Your task to perform on an android device: Open the web browser Image 0: 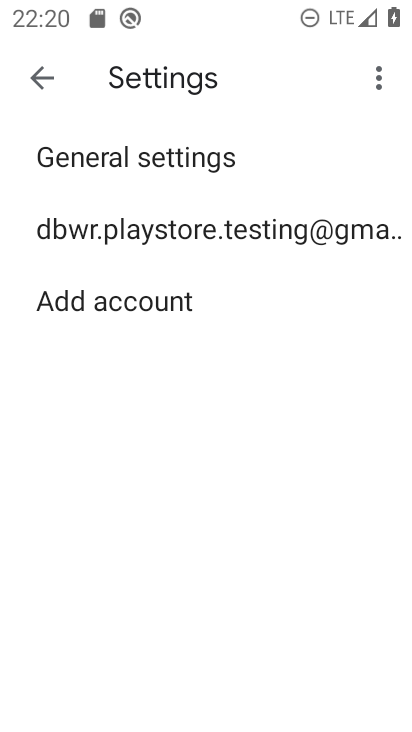
Step 0: press home button
Your task to perform on an android device: Open the web browser Image 1: 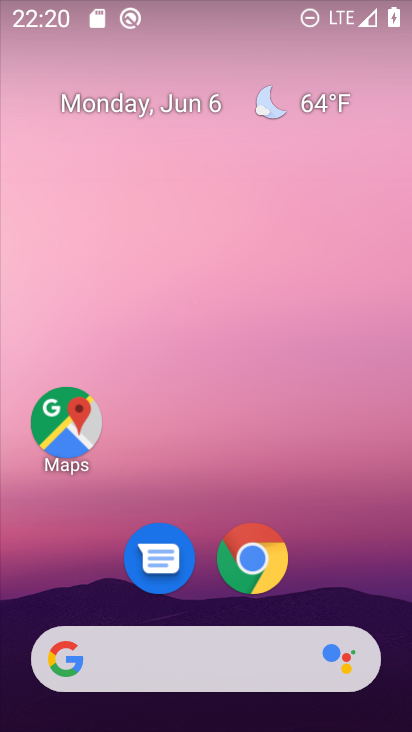
Step 1: click (260, 553)
Your task to perform on an android device: Open the web browser Image 2: 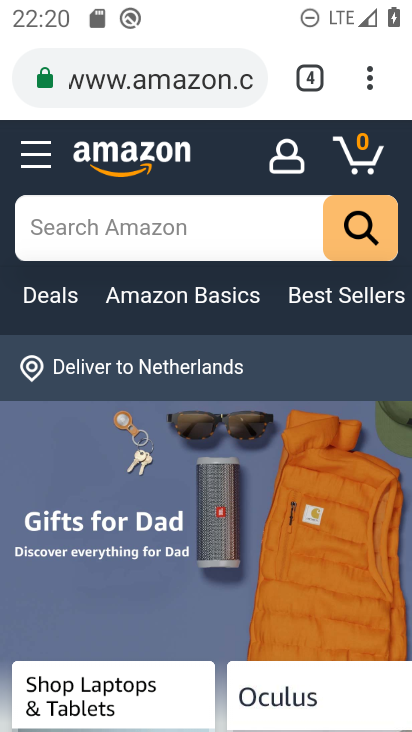
Step 2: click (260, 553)
Your task to perform on an android device: Open the web browser Image 3: 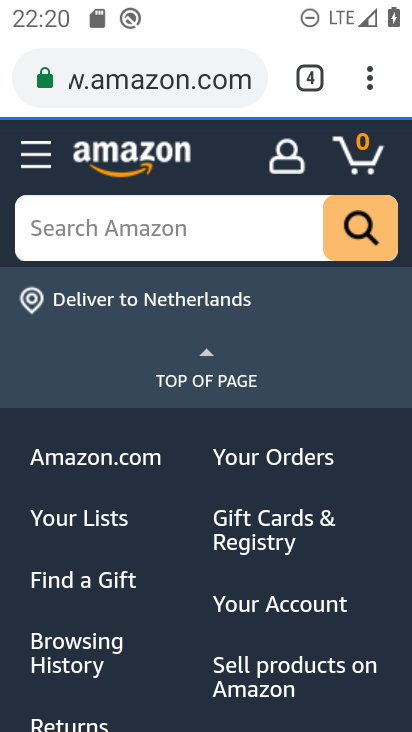
Step 3: task complete